Your task to perform on an android device: Open internet settings Image 0: 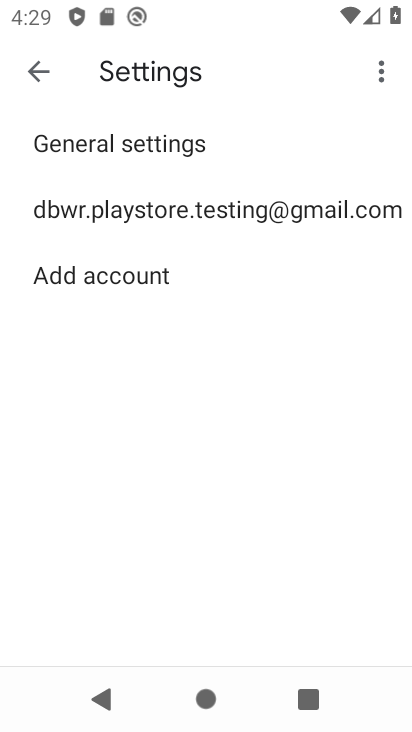
Step 0: press home button
Your task to perform on an android device: Open internet settings Image 1: 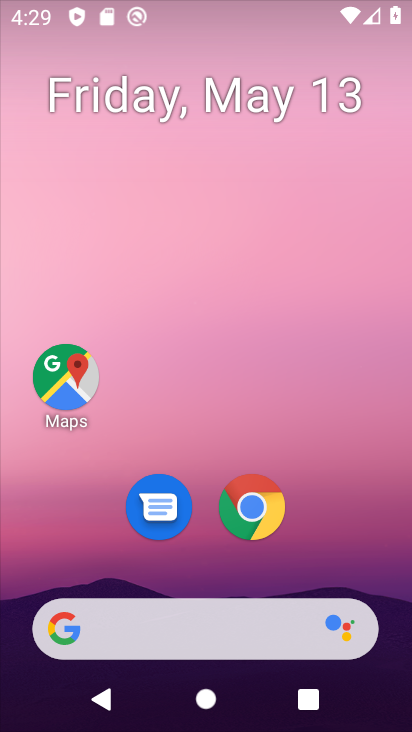
Step 1: drag from (333, 536) to (201, 41)
Your task to perform on an android device: Open internet settings Image 2: 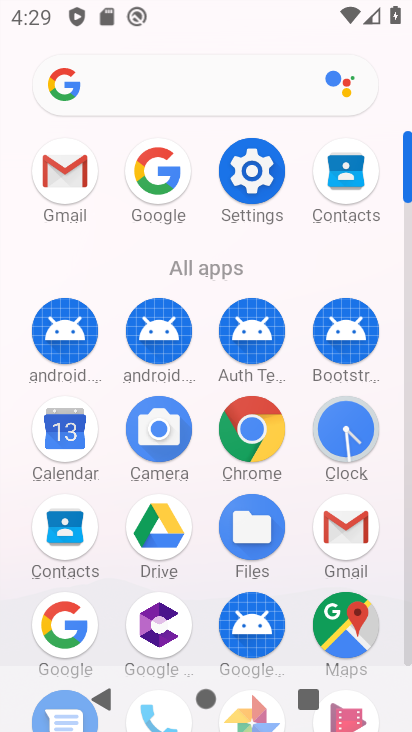
Step 2: click (254, 177)
Your task to perform on an android device: Open internet settings Image 3: 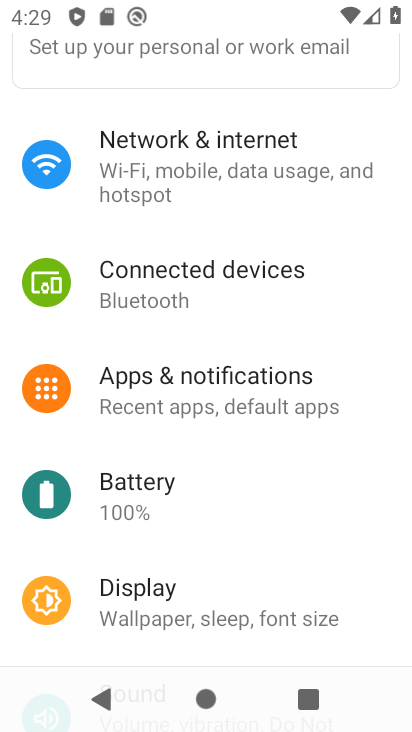
Step 3: click (241, 143)
Your task to perform on an android device: Open internet settings Image 4: 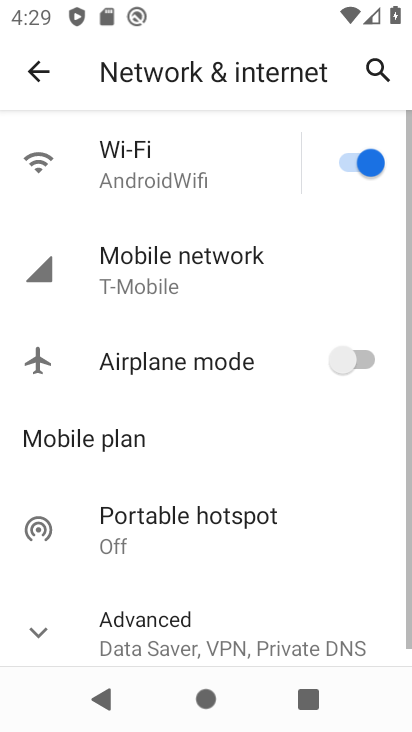
Step 4: task complete